Your task to perform on an android device: see creations saved in the google photos Image 0: 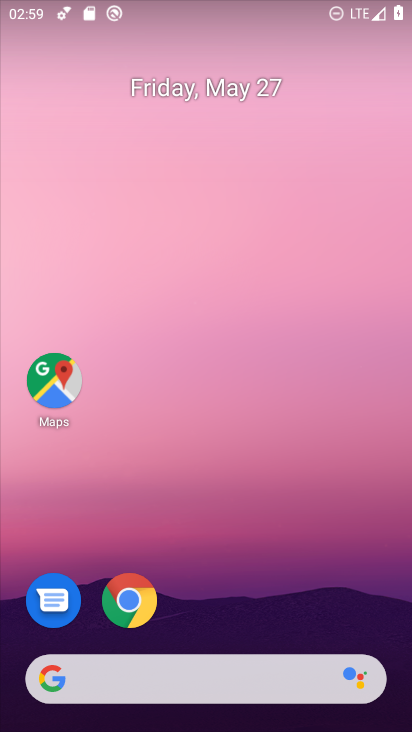
Step 0: drag from (207, 725) to (215, 65)
Your task to perform on an android device: see creations saved in the google photos Image 1: 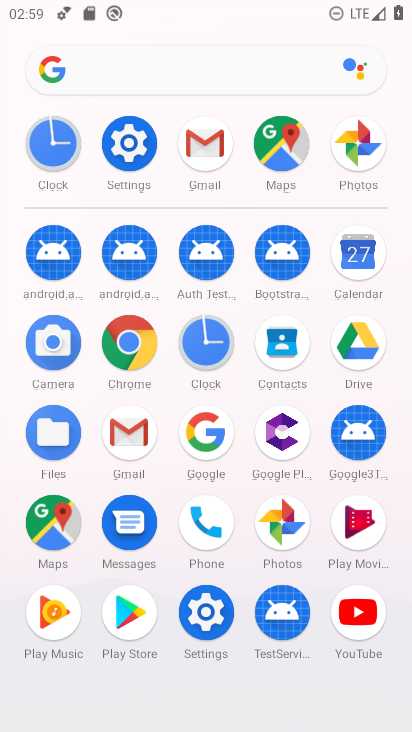
Step 1: click (287, 518)
Your task to perform on an android device: see creations saved in the google photos Image 2: 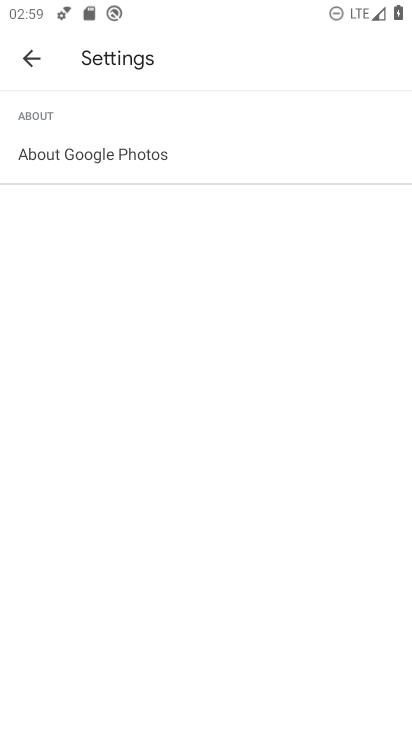
Step 2: click (30, 58)
Your task to perform on an android device: see creations saved in the google photos Image 3: 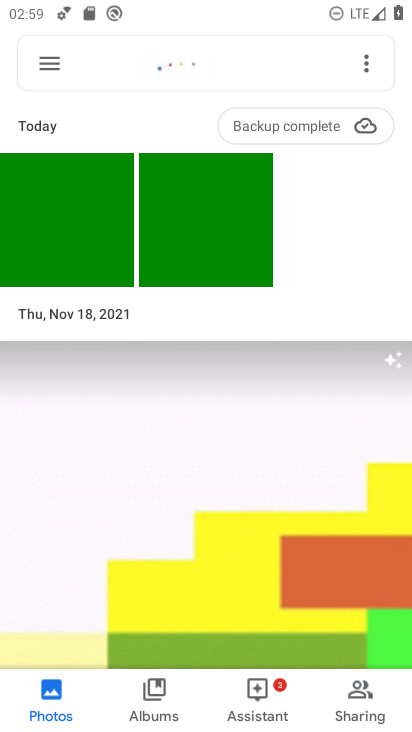
Step 3: click (203, 62)
Your task to perform on an android device: see creations saved in the google photos Image 4: 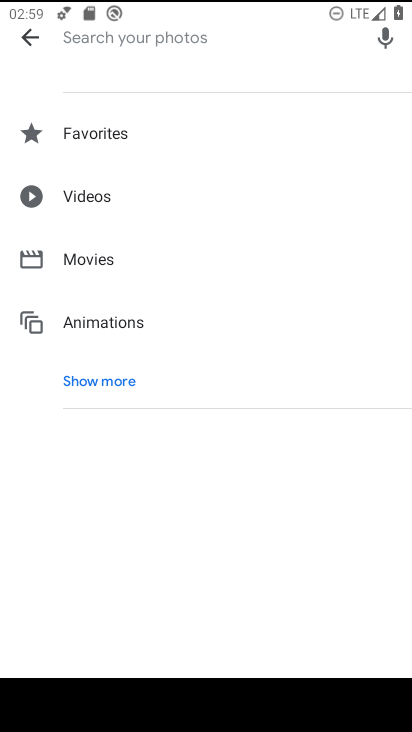
Step 4: click (97, 379)
Your task to perform on an android device: see creations saved in the google photos Image 5: 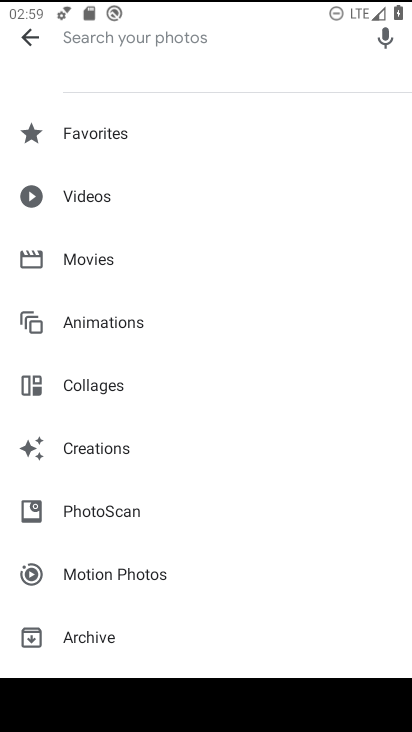
Step 5: click (101, 444)
Your task to perform on an android device: see creations saved in the google photos Image 6: 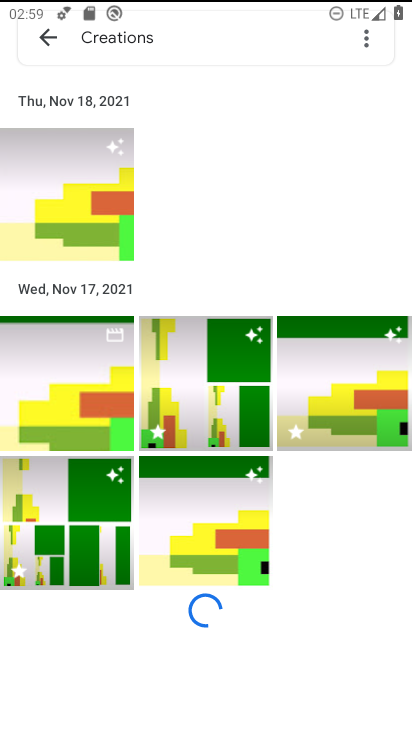
Step 6: task complete